Your task to perform on an android device: What's the weather today? Image 0: 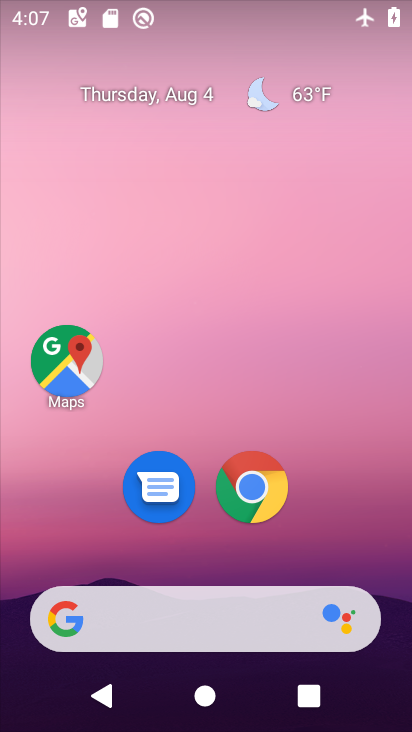
Step 0: click (144, 628)
Your task to perform on an android device: What's the weather today? Image 1: 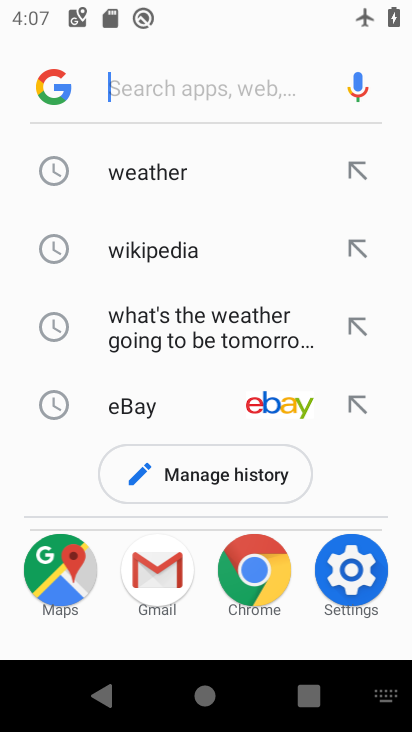
Step 1: click (122, 168)
Your task to perform on an android device: What's the weather today? Image 2: 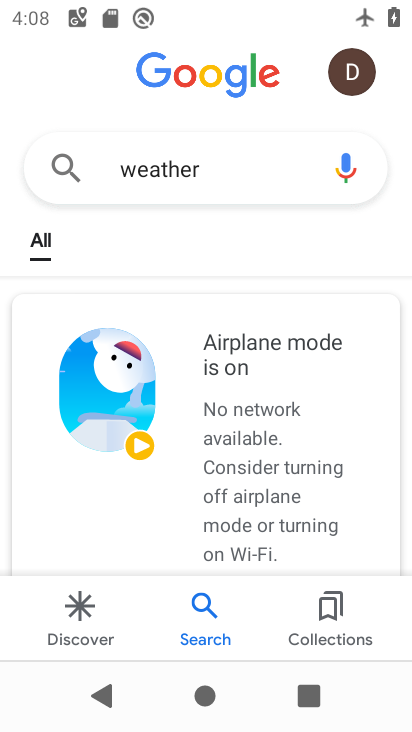
Step 2: drag from (340, 17) to (282, 621)
Your task to perform on an android device: What's the weather today? Image 3: 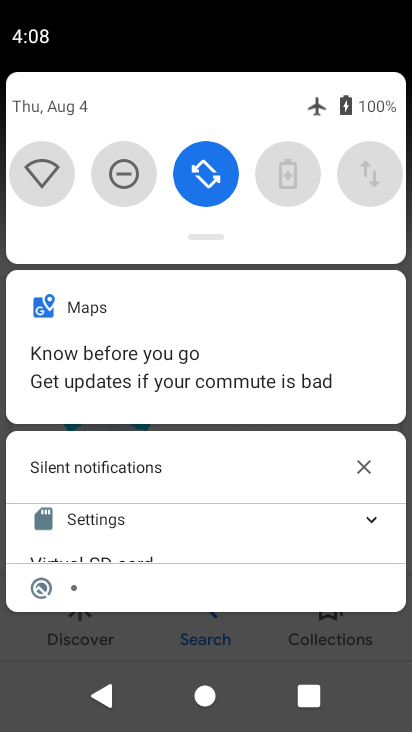
Step 3: drag from (175, 658) to (162, 712)
Your task to perform on an android device: What's the weather today? Image 4: 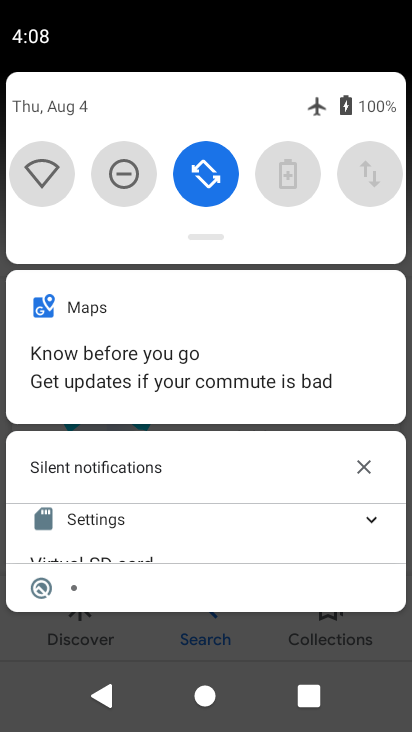
Step 4: drag from (206, 214) to (153, 665)
Your task to perform on an android device: What's the weather today? Image 5: 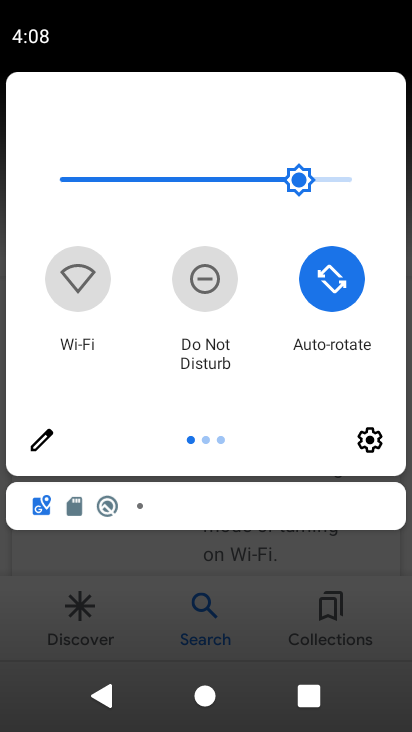
Step 5: drag from (341, 269) to (18, 301)
Your task to perform on an android device: What's the weather today? Image 6: 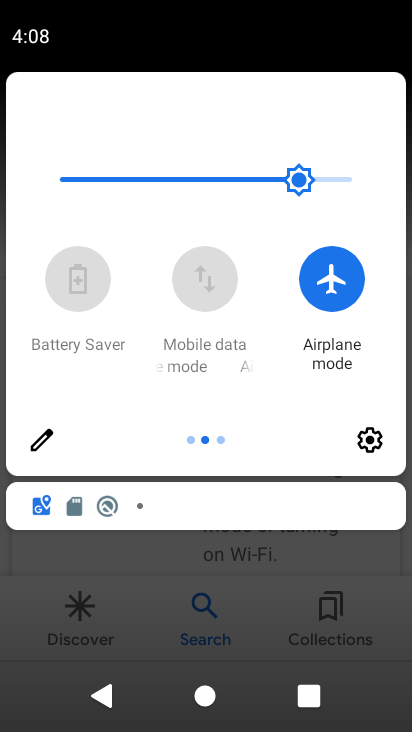
Step 6: click (314, 275)
Your task to perform on an android device: What's the weather today? Image 7: 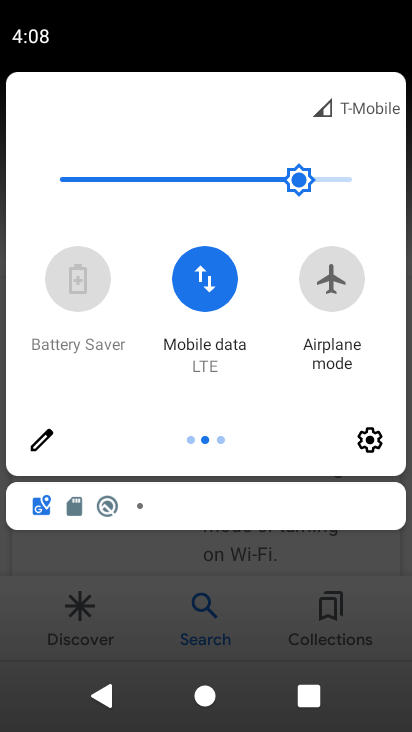
Step 7: task complete